Your task to perform on an android device: add a contact Image 0: 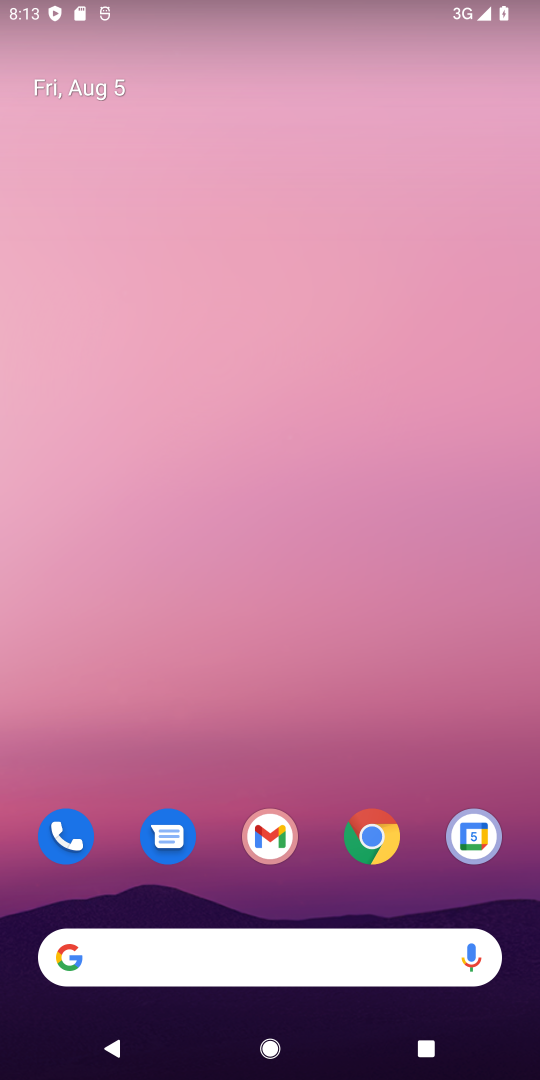
Step 0: drag from (292, 749) to (288, 6)
Your task to perform on an android device: add a contact Image 1: 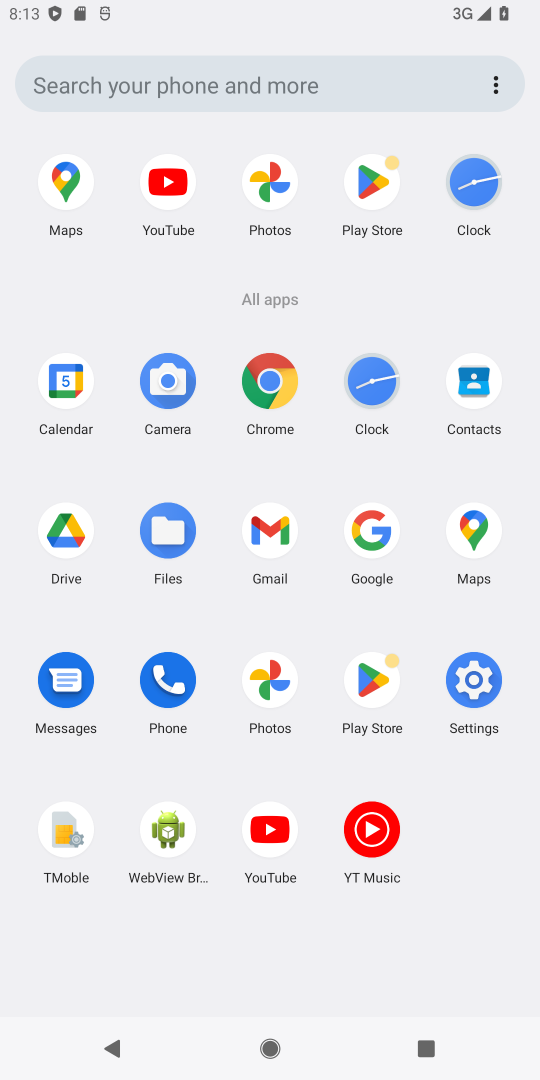
Step 1: click (476, 375)
Your task to perform on an android device: add a contact Image 2: 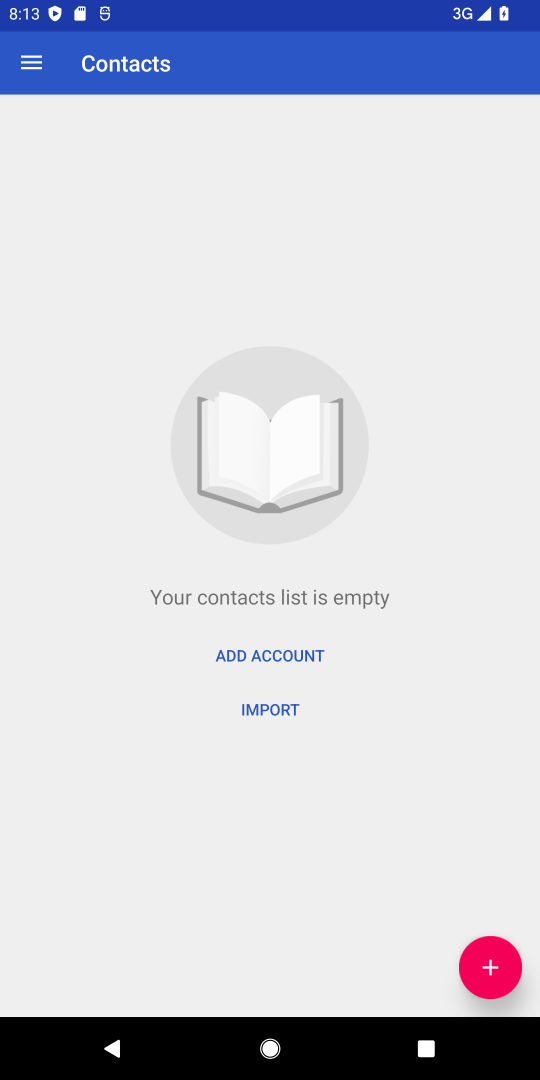
Step 2: click (491, 968)
Your task to perform on an android device: add a contact Image 3: 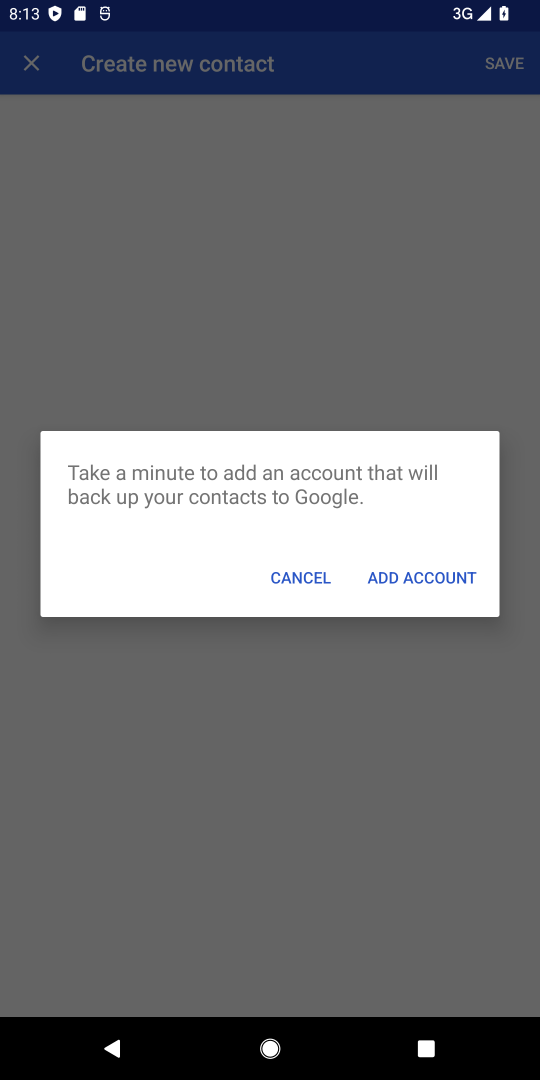
Step 3: click (424, 571)
Your task to perform on an android device: add a contact Image 4: 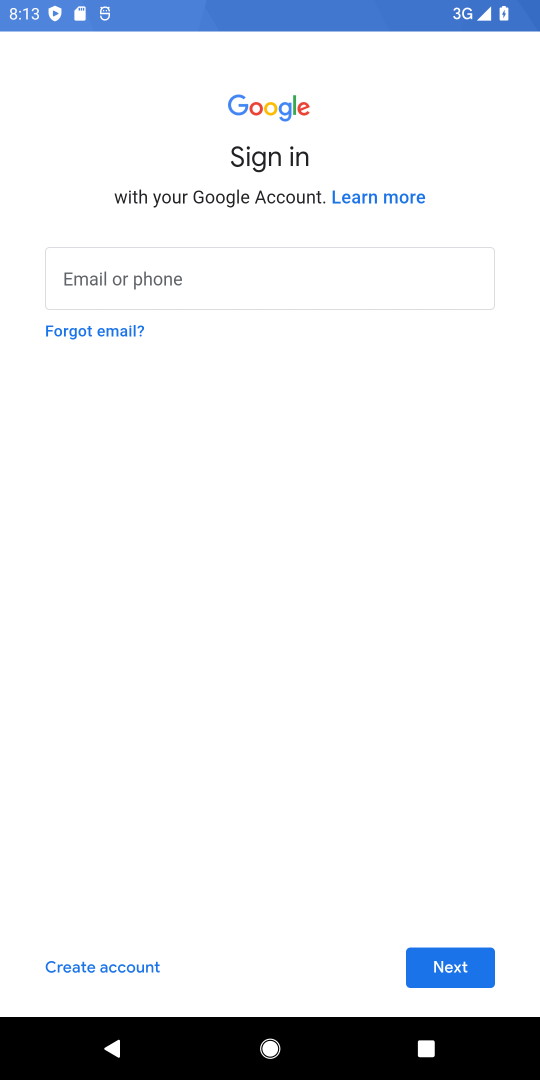
Step 4: task complete